Your task to perform on an android device: Check the weather Image 0: 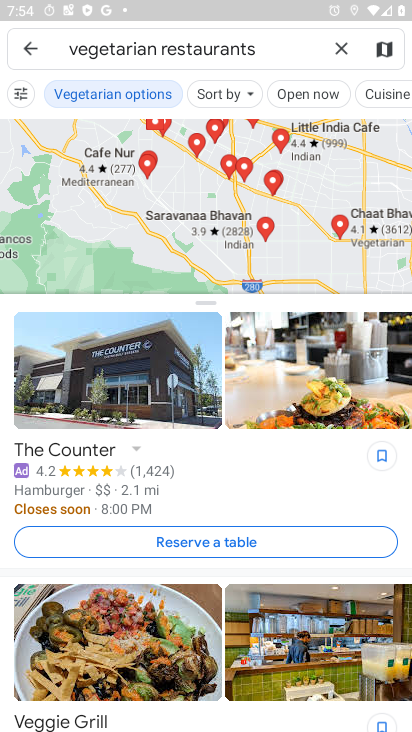
Step 0: press home button
Your task to perform on an android device: Check the weather Image 1: 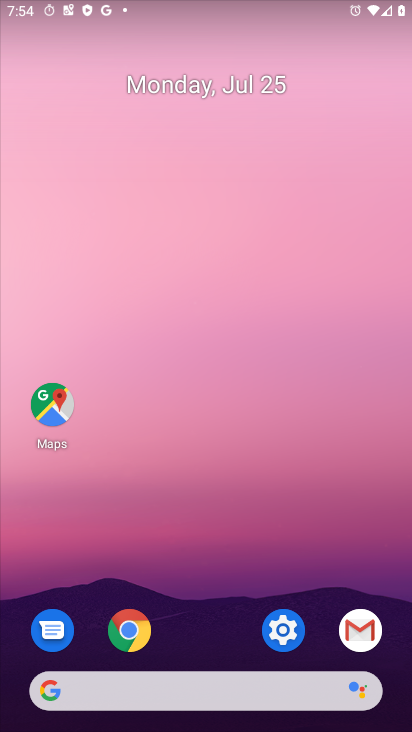
Step 1: click (163, 687)
Your task to perform on an android device: Check the weather Image 2: 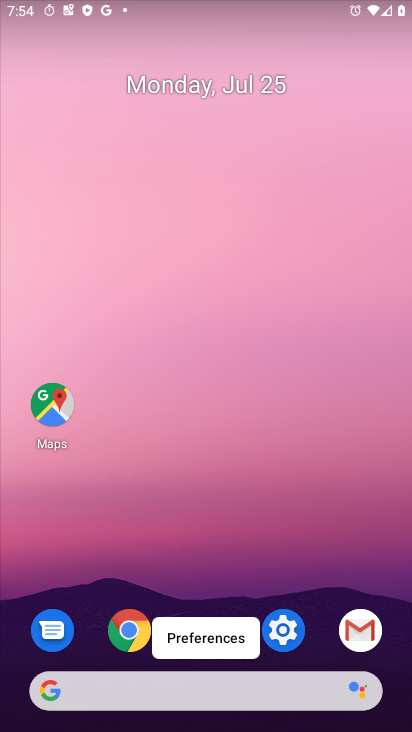
Step 2: click (161, 695)
Your task to perform on an android device: Check the weather Image 3: 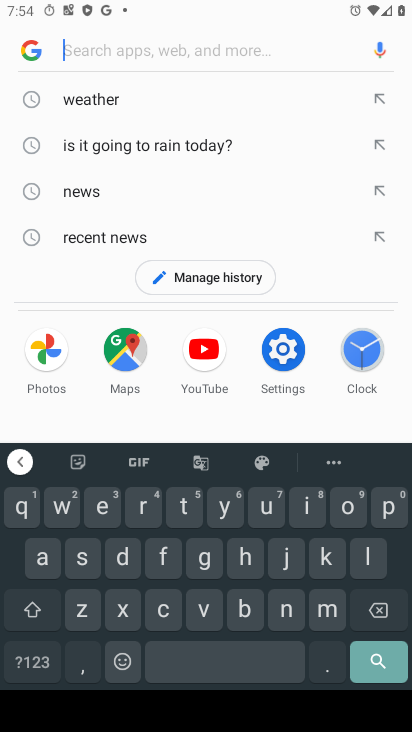
Step 3: click (88, 99)
Your task to perform on an android device: Check the weather Image 4: 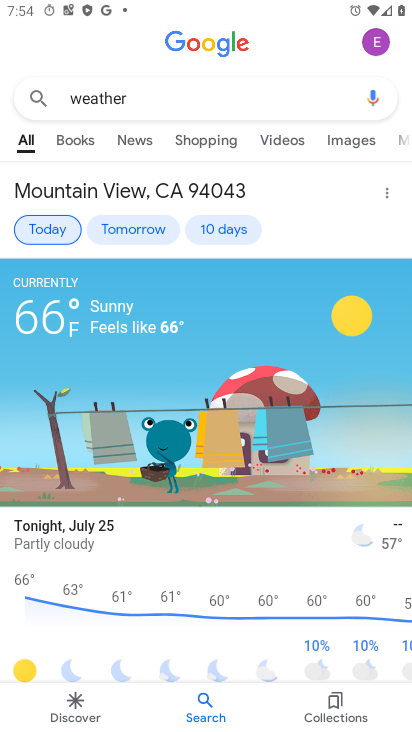
Step 4: task complete